Your task to perform on an android device: Check the news Image 0: 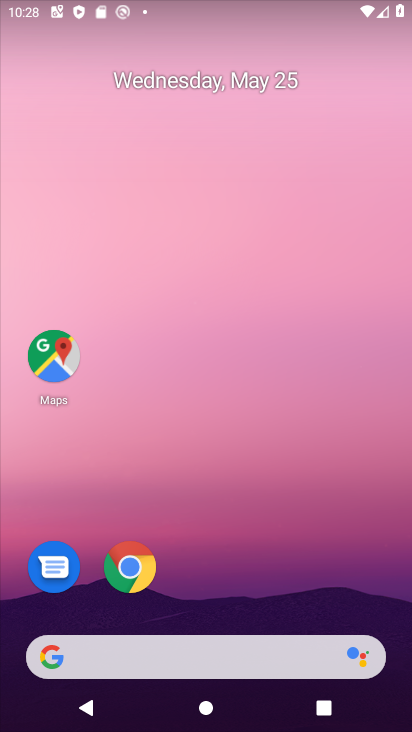
Step 0: drag from (259, 692) to (96, 47)
Your task to perform on an android device: Check the news Image 1: 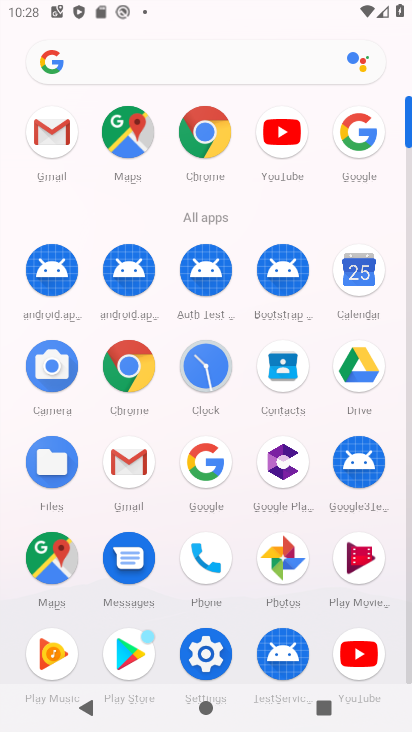
Step 1: press back button
Your task to perform on an android device: Check the news Image 2: 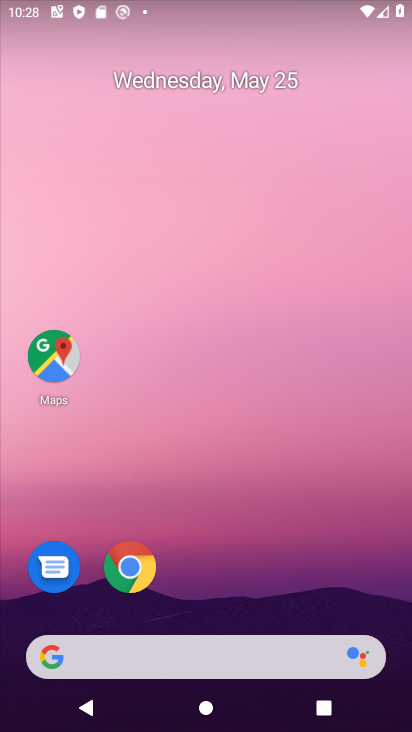
Step 2: click (406, 534)
Your task to perform on an android device: Check the news Image 3: 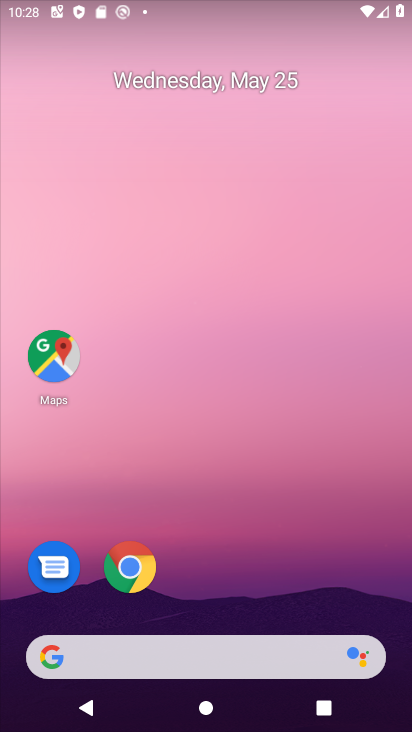
Step 3: task complete